Your task to perform on an android device: create a new album in the google photos Image 0: 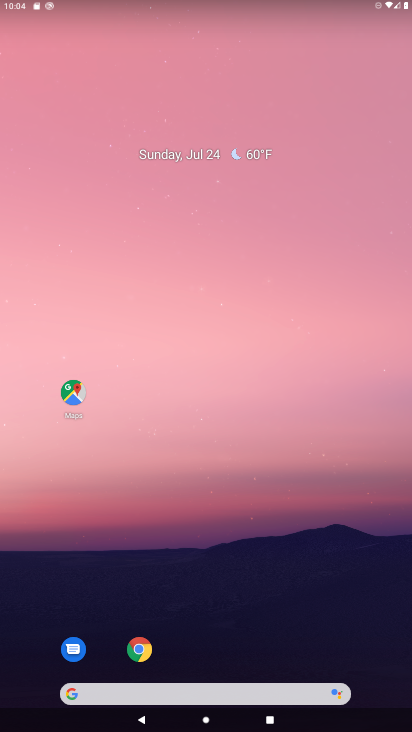
Step 0: drag from (293, 631) to (152, 117)
Your task to perform on an android device: create a new album in the google photos Image 1: 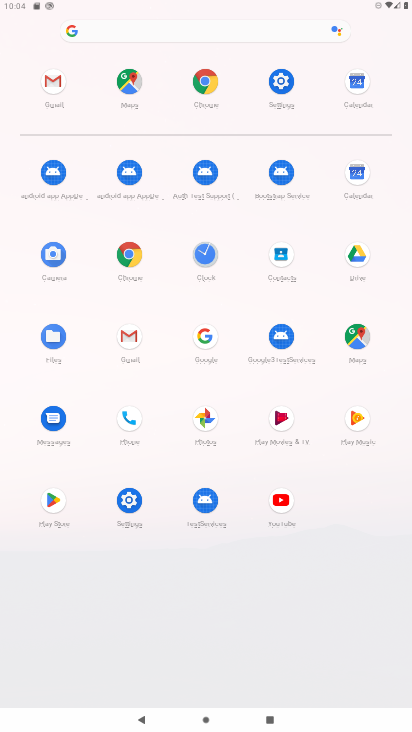
Step 1: click (201, 420)
Your task to perform on an android device: create a new album in the google photos Image 2: 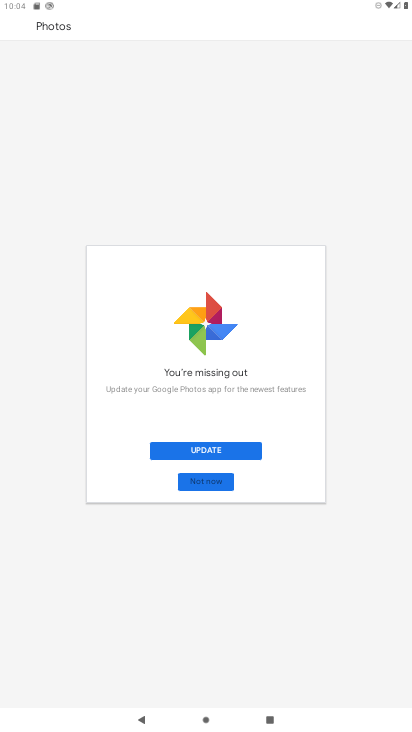
Step 2: click (197, 484)
Your task to perform on an android device: create a new album in the google photos Image 3: 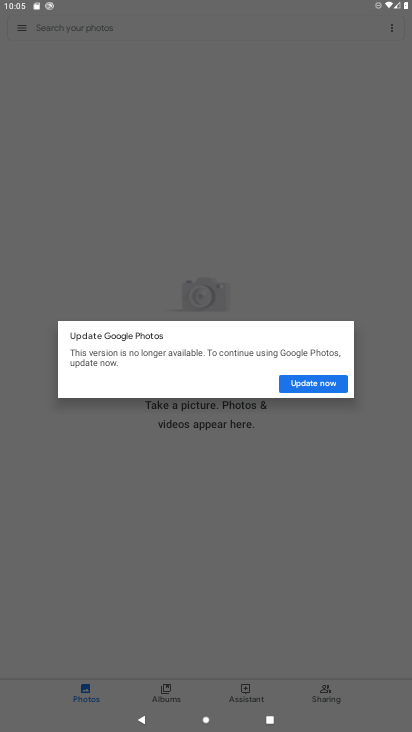
Step 3: click (307, 376)
Your task to perform on an android device: create a new album in the google photos Image 4: 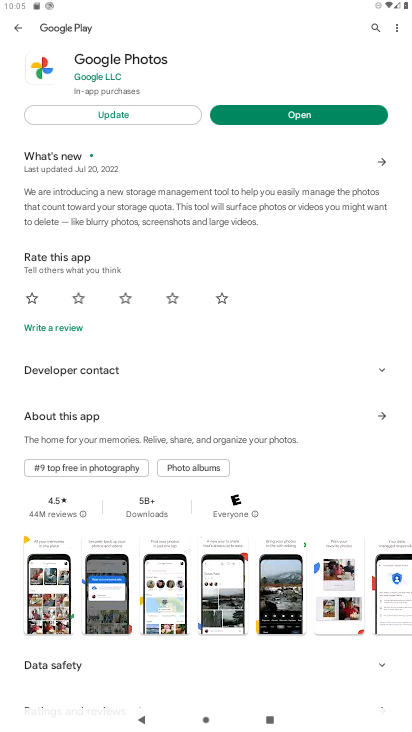
Step 4: click (148, 115)
Your task to perform on an android device: create a new album in the google photos Image 5: 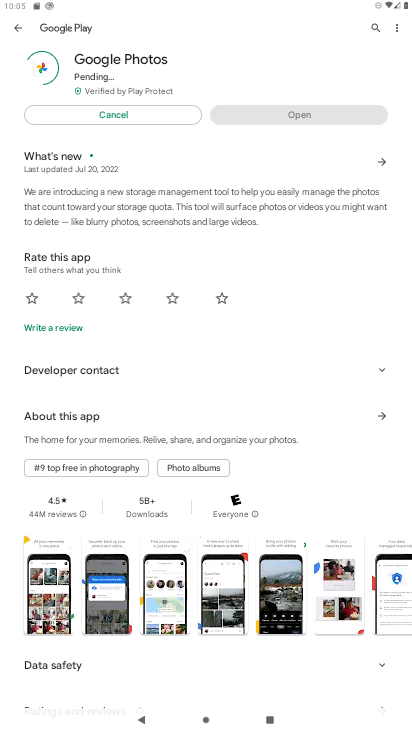
Step 5: task complete